Your task to perform on an android device: Go to Android settings Image 0: 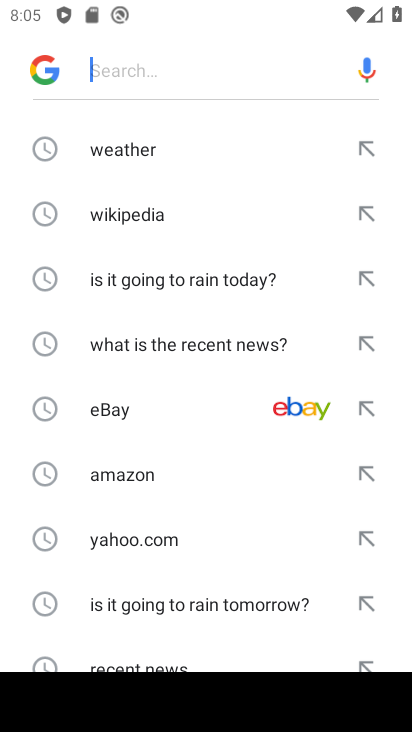
Step 0: press home button
Your task to perform on an android device: Go to Android settings Image 1: 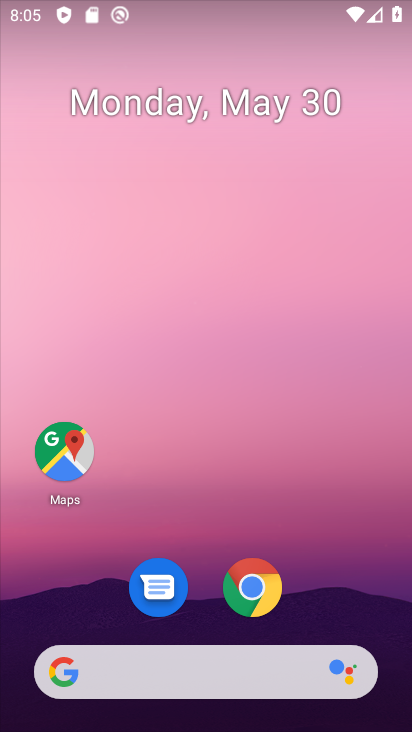
Step 1: drag from (197, 403) to (216, 44)
Your task to perform on an android device: Go to Android settings Image 2: 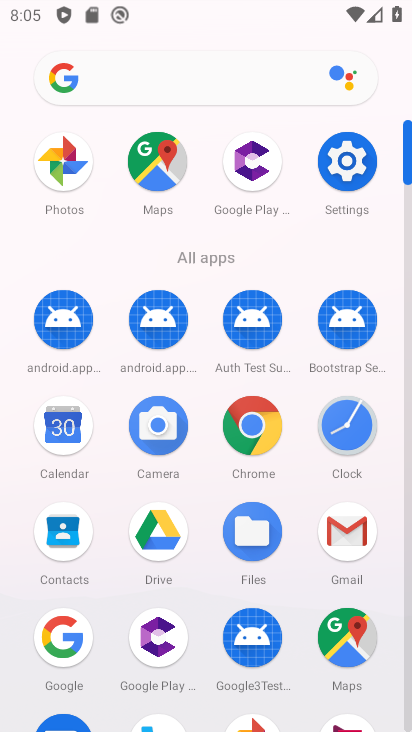
Step 2: click (339, 184)
Your task to perform on an android device: Go to Android settings Image 3: 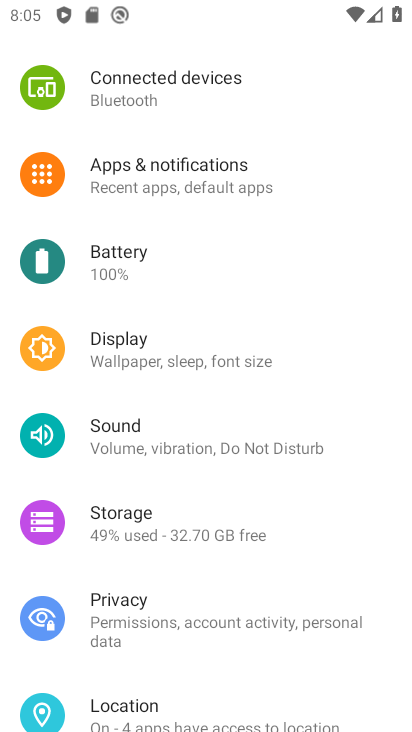
Step 3: task complete